Your task to perform on an android device: visit the assistant section in the google photos Image 0: 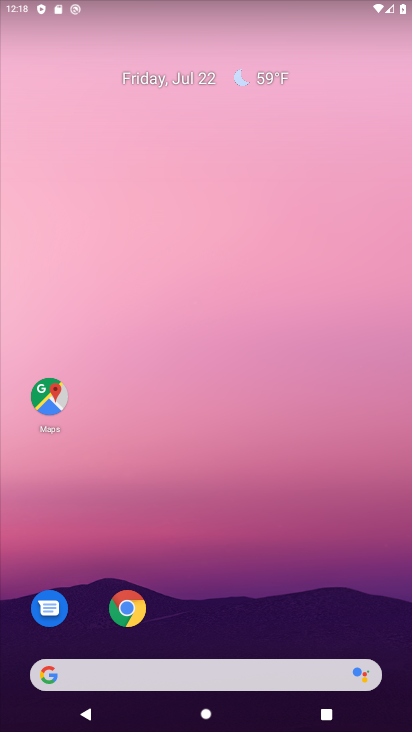
Step 0: drag from (194, 608) to (194, 262)
Your task to perform on an android device: visit the assistant section in the google photos Image 1: 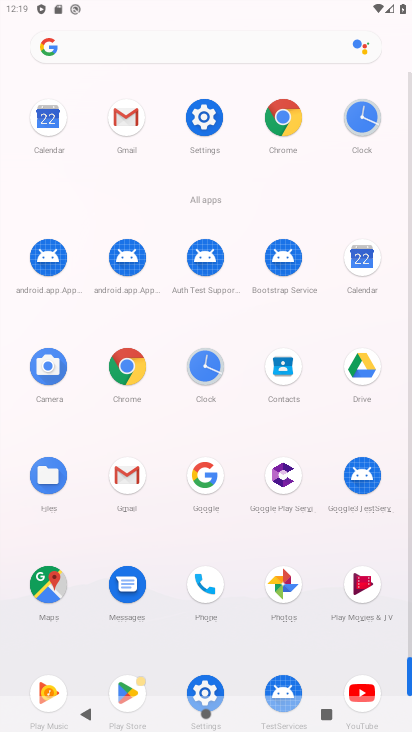
Step 1: drag from (174, 640) to (179, 465)
Your task to perform on an android device: visit the assistant section in the google photos Image 2: 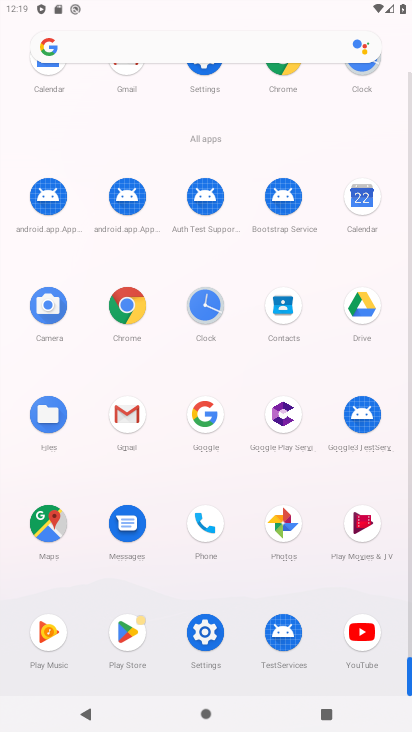
Step 2: click (281, 531)
Your task to perform on an android device: visit the assistant section in the google photos Image 3: 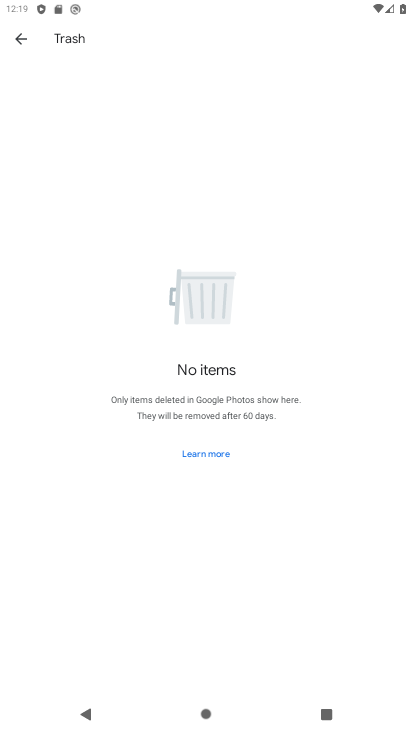
Step 3: click (15, 31)
Your task to perform on an android device: visit the assistant section in the google photos Image 4: 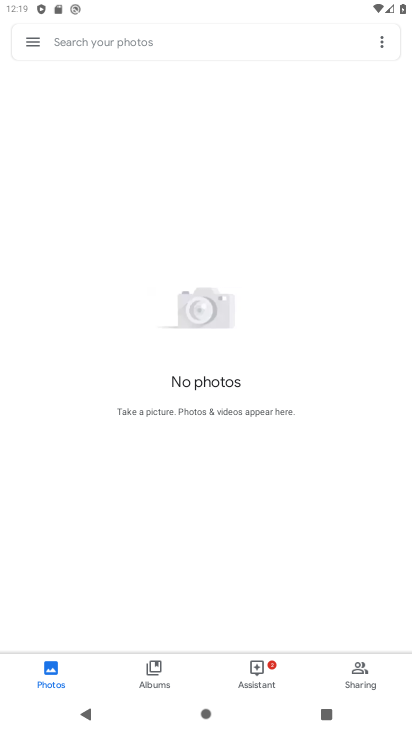
Step 4: click (257, 667)
Your task to perform on an android device: visit the assistant section in the google photos Image 5: 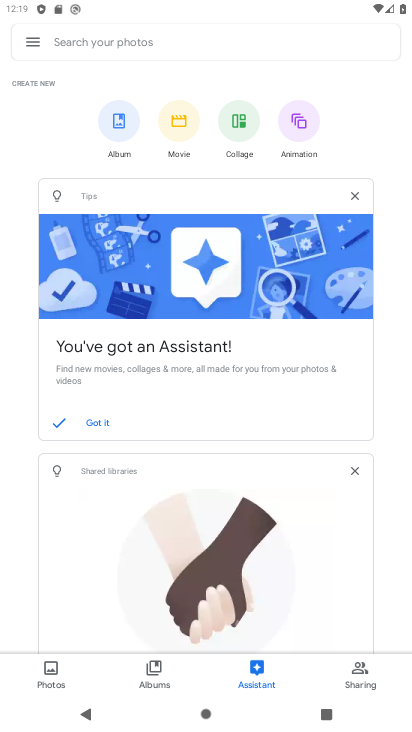
Step 5: task complete